Your task to perform on an android device: Open calendar and show me the third week of next month Image 0: 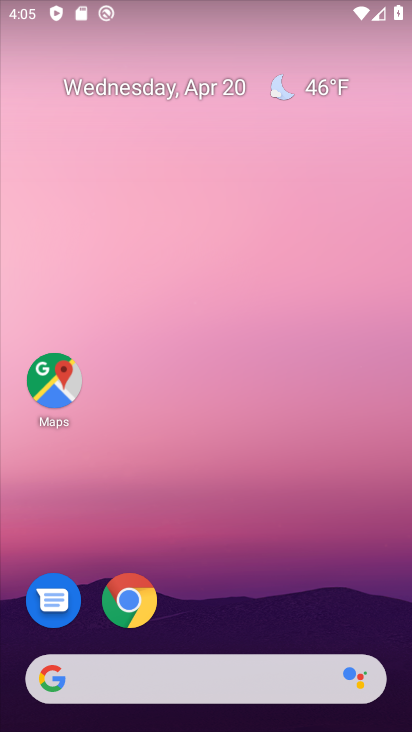
Step 0: drag from (215, 625) to (208, 122)
Your task to perform on an android device: Open calendar and show me the third week of next month Image 1: 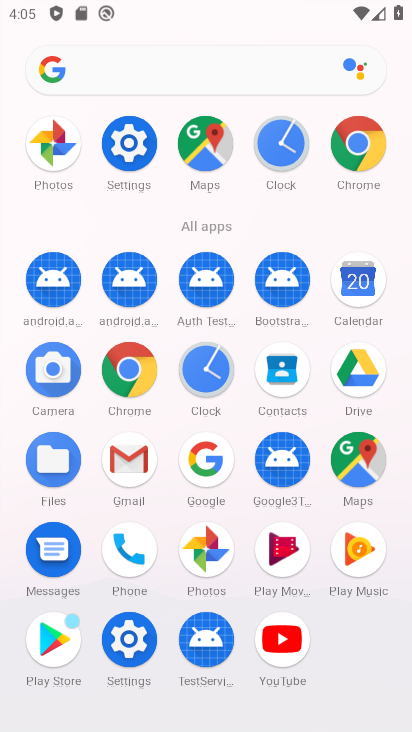
Step 1: click (361, 277)
Your task to perform on an android device: Open calendar and show me the third week of next month Image 2: 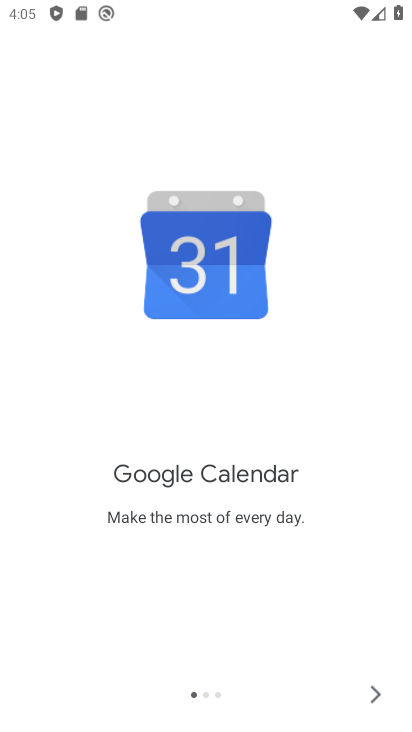
Step 2: click (364, 689)
Your task to perform on an android device: Open calendar and show me the third week of next month Image 3: 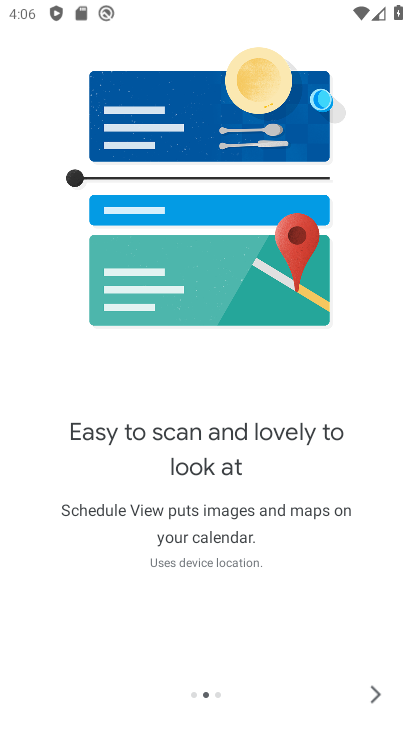
Step 3: click (371, 691)
Your task to perform on an android device: Open calendar and show me the third week of next month Image 4: 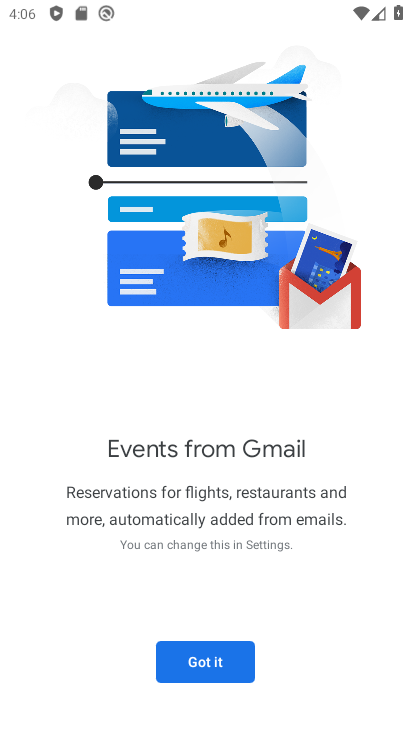
Step 4: click (206, 664)
Your task to perform on an android device: Open calendar and show me the third week of next month Image 5: 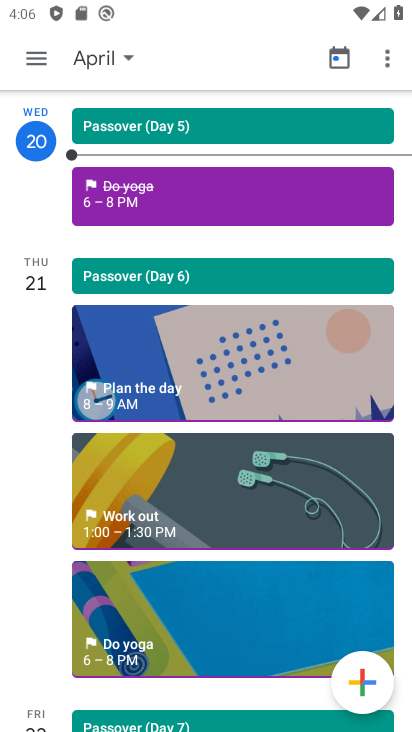
Step 5: click (34, 56)
Your task to perform on an android device: Open calendar and show me the third week of next month Image 6: 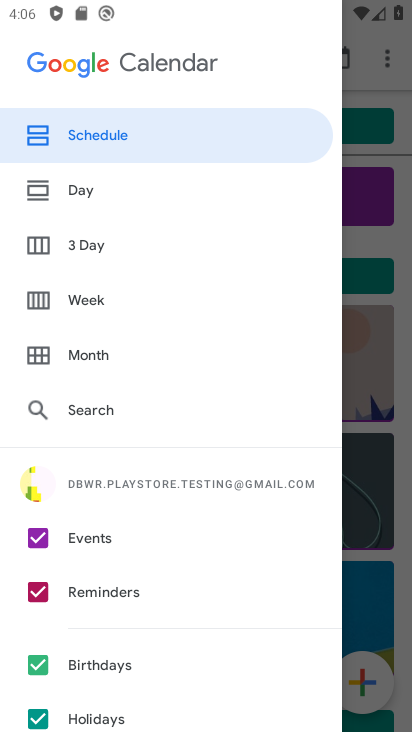
Step 6: click (98, 299)
Your task to perform on an android device: Open calendar and show me the third week of next month Image 7: 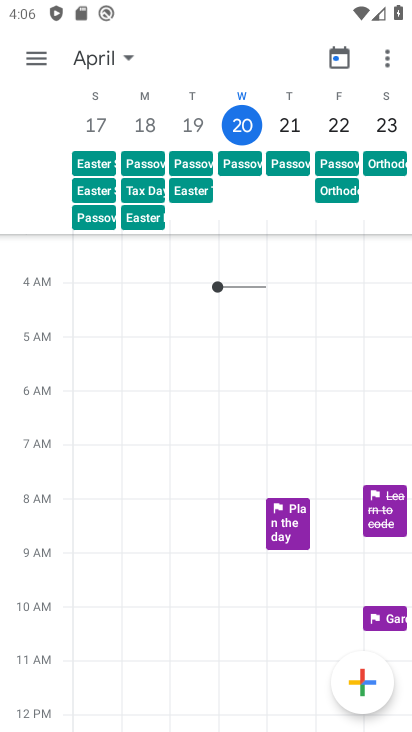
Step 7: drag from (381, 115) to (30, 131)
Your task to perform on an android device: Open calendar and show me the third week of next month Image 8: 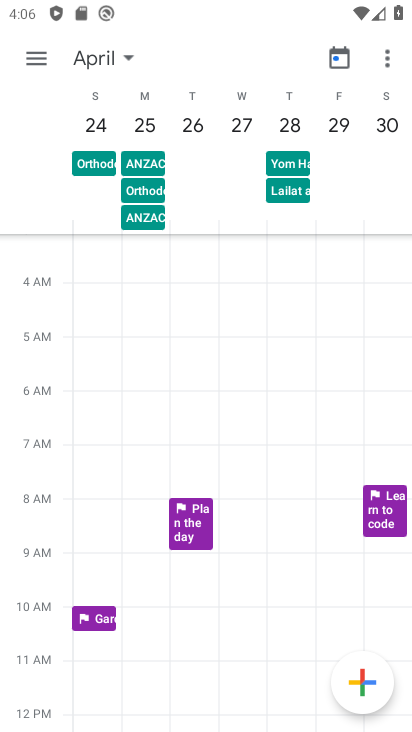
Step 8: drag from (362, 133) to (31, 133)
Your task to perform on an android device: Open calendar and show me the third week of next month Image 9: 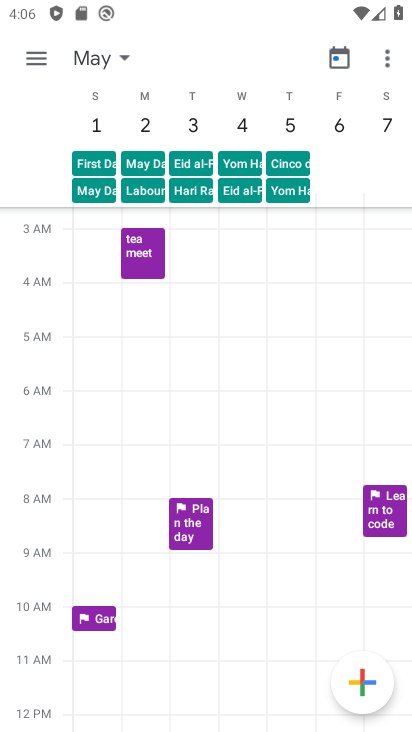
Step 9: drag from (374, 120) to (68, 120)
Your task to perform on an android device: Open calendar and show me the third week of next month Image 10: 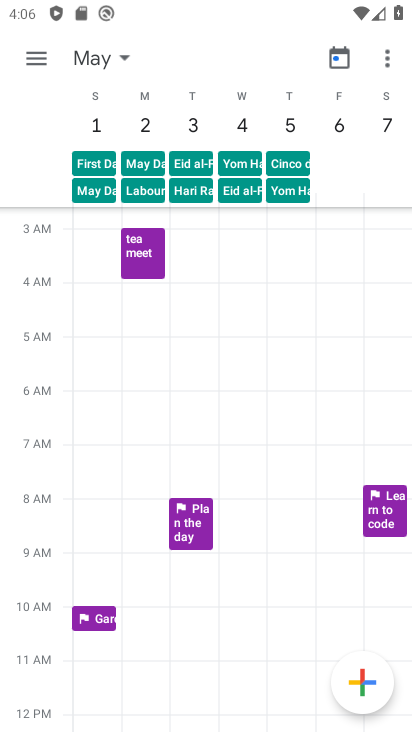
Step 10: drag from (287, 123) to (36, 115)
Your task to perform on an android device: Open calendar and show me the third week of next month Image 11: 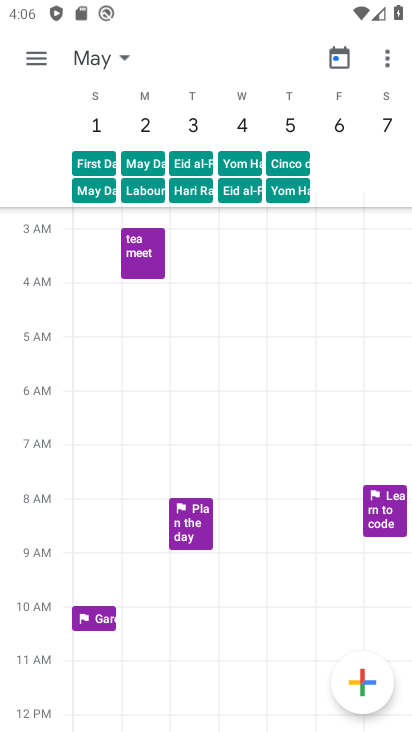
Step 11: drag from (383, 114) to (64, 111)
Your task to perform on an android device: Open calendar and show me the third week of next month Image 12: 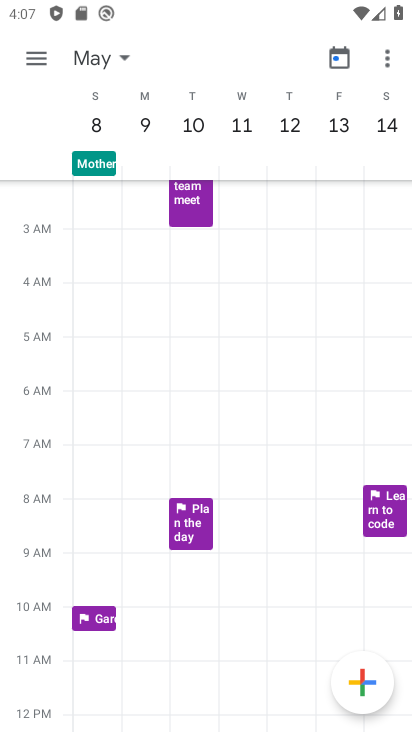
Step 12: drag from (393, 115) to (77, 108)
Your task to perform on an android device: Open calendar and show me the third week of next month Image 13: 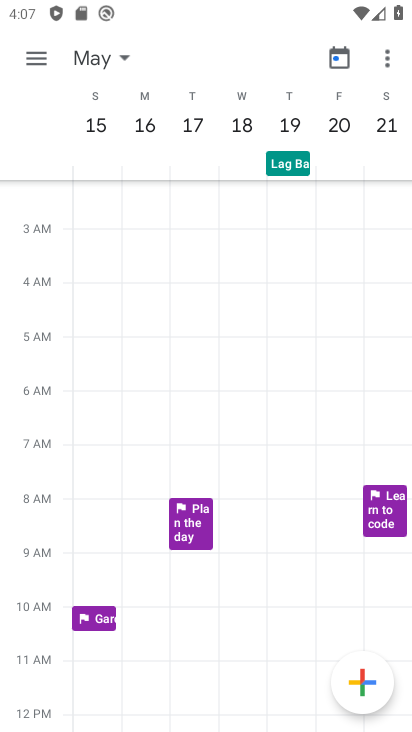
Step 13: click (96, 125)
Your task to perform on an android device: Open calendar and show me the third week of next month Image 14: 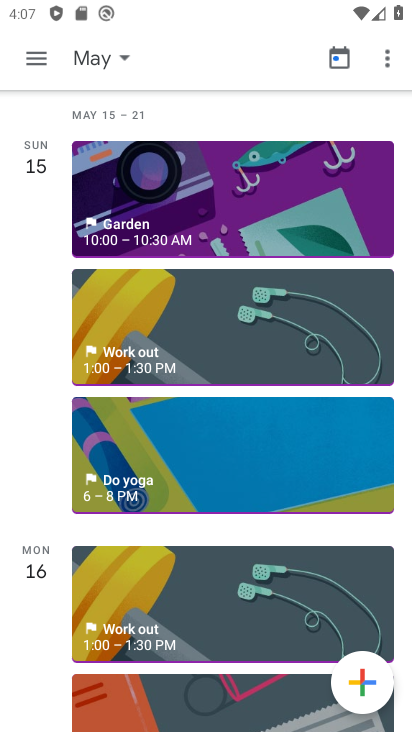
Step 14: task complete